Your task to perform on an android device: open sync settings in chrome Image 0: 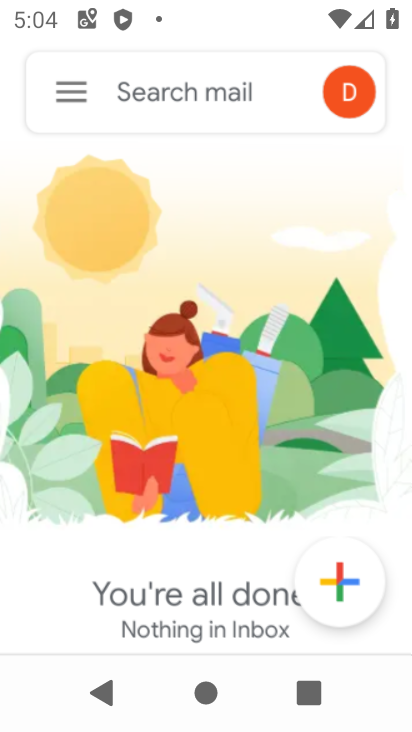
Step 0: drag from (383, 554) to (331, 338)
Your task to perform on an android device: open sync settings in chrome Image 1: 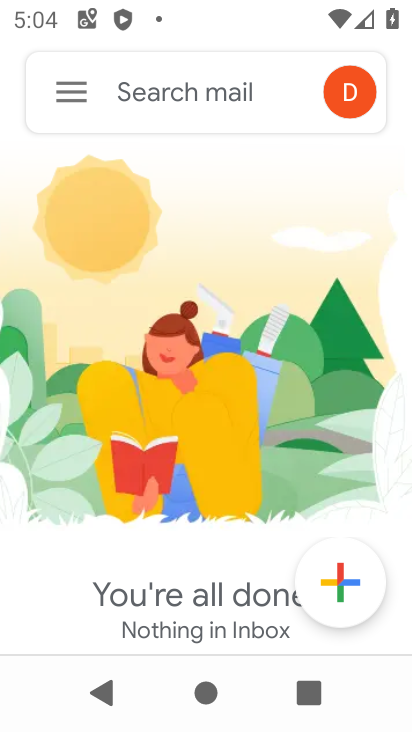
Step 1: press home button
Your task to perform on an android device: open sync settings in chrome Image 2: 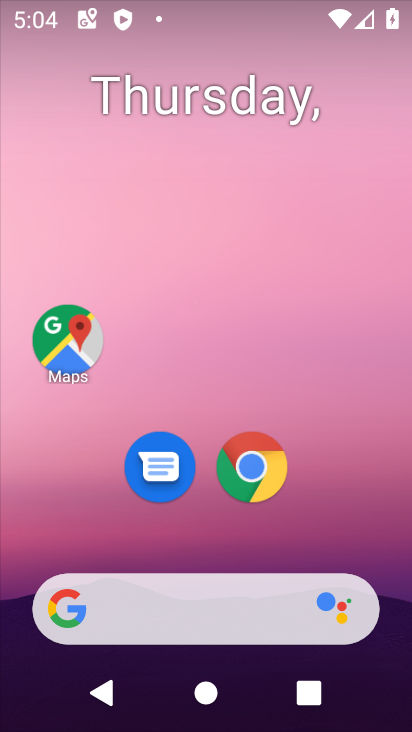
Step 2: drag from (387, 562) to (347, 83)
Your task to perform on an android device: open sync settings in chrome Image 3: 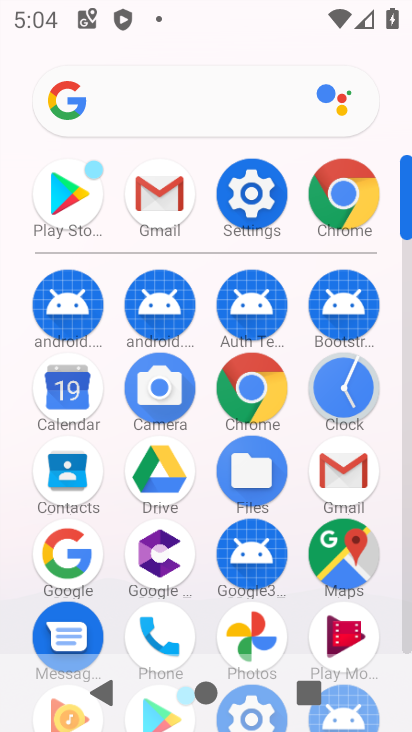
Step 3: click (348, 183)
Your task to perform on an android device: open sync settings in chrome Image 4: 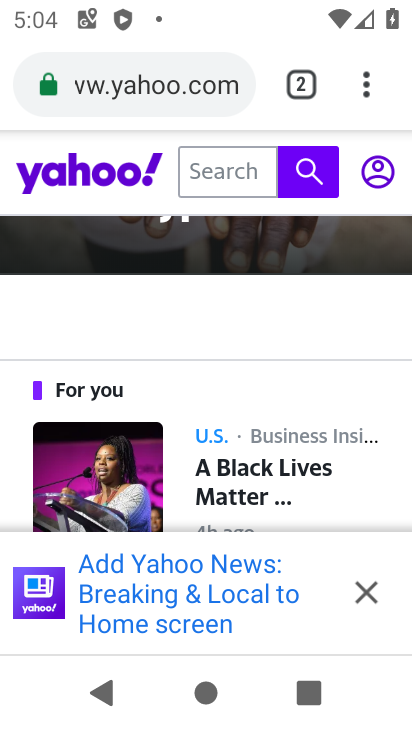
Step 4: click (366, 106)
Your task to perform on an android device: open sync settings in chrome Image 5: 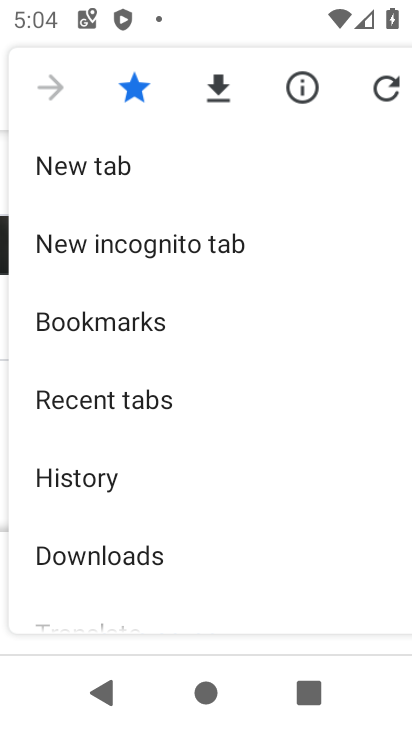
Step 5: drag from (230, 596) to (202, 95)
Your task to perform on an android device: open sync settings in chrome Image 6: 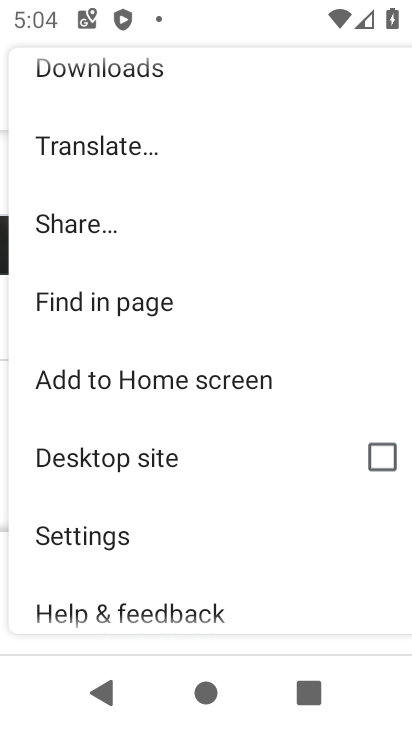
Step 6: click (159, 531)
Your task to perform on an android device: open sync settings in chrome Image 7: 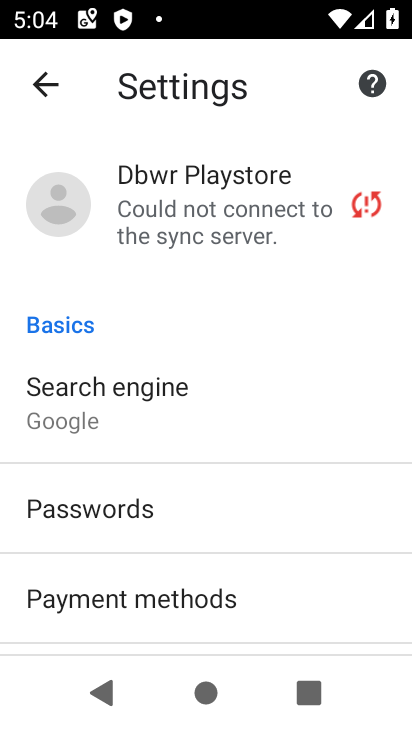
Step 7: click (257, 221)
Your task to perform on an android device: open sync settings in chrome Image 8: 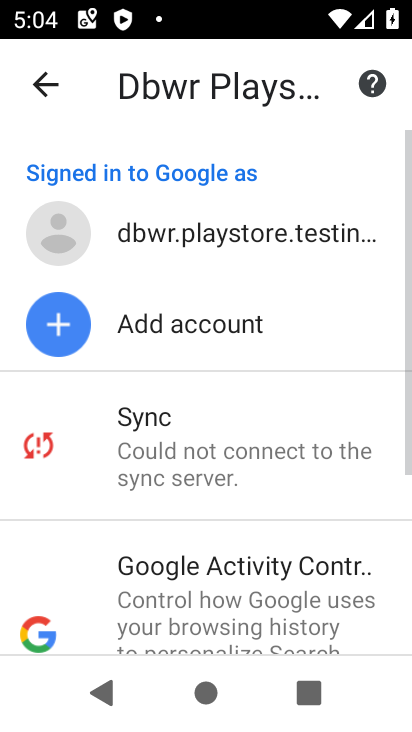
Step 8: click (295, 501)
Your task to perform on an android device: open sync settings in chrome Image 9: 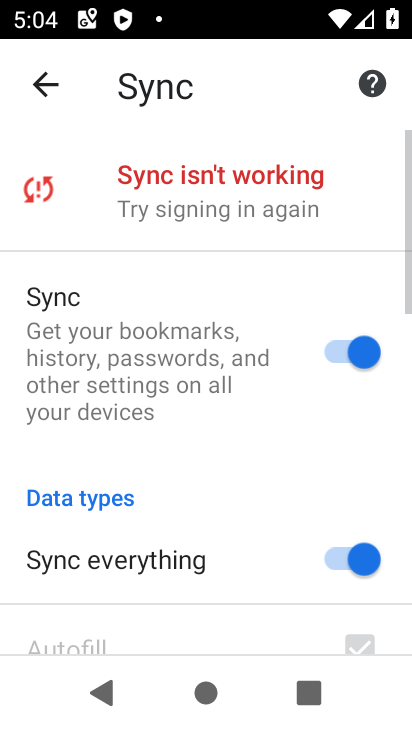
Step 9: task complete